Your task to perform on an android device: add a contact Image 0: 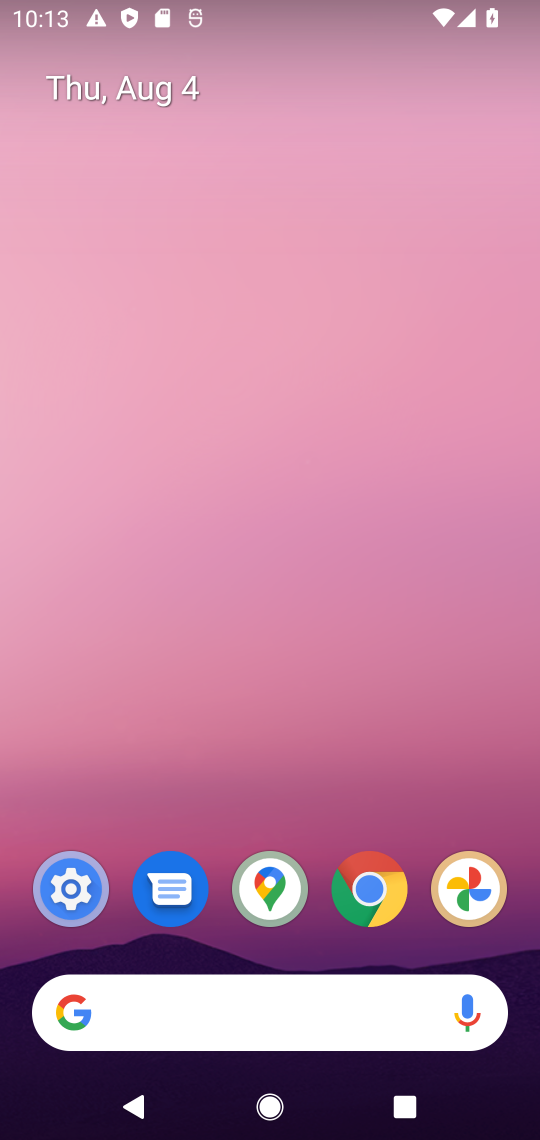
Step 0: press home button
Your task to perform on an android device: add a contact Image 1: 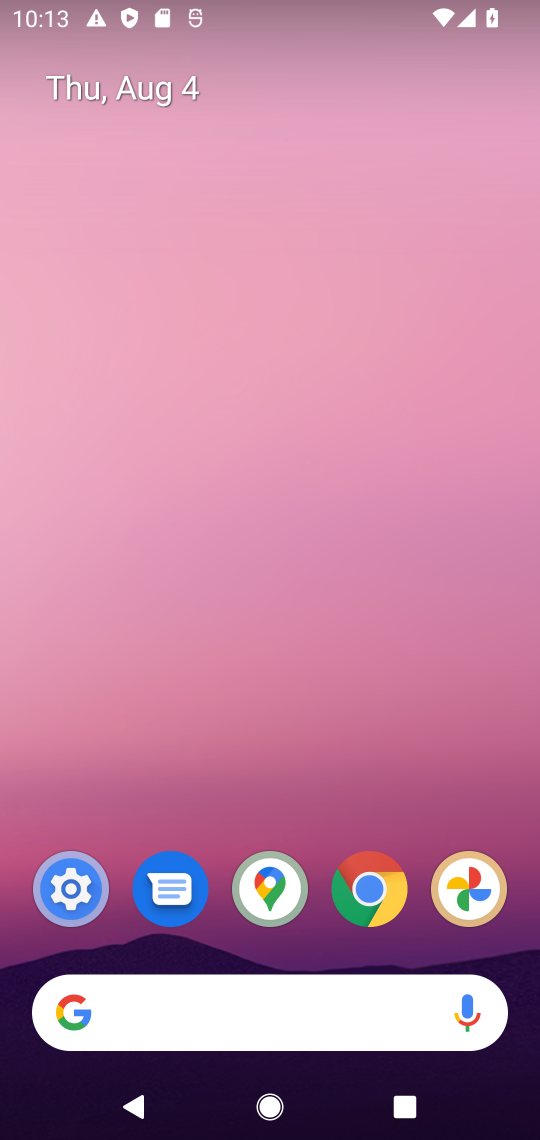
Step 1: drag from (318, 783) to (322, 368)
Your task to perform on an android device: add a contact Image 2: 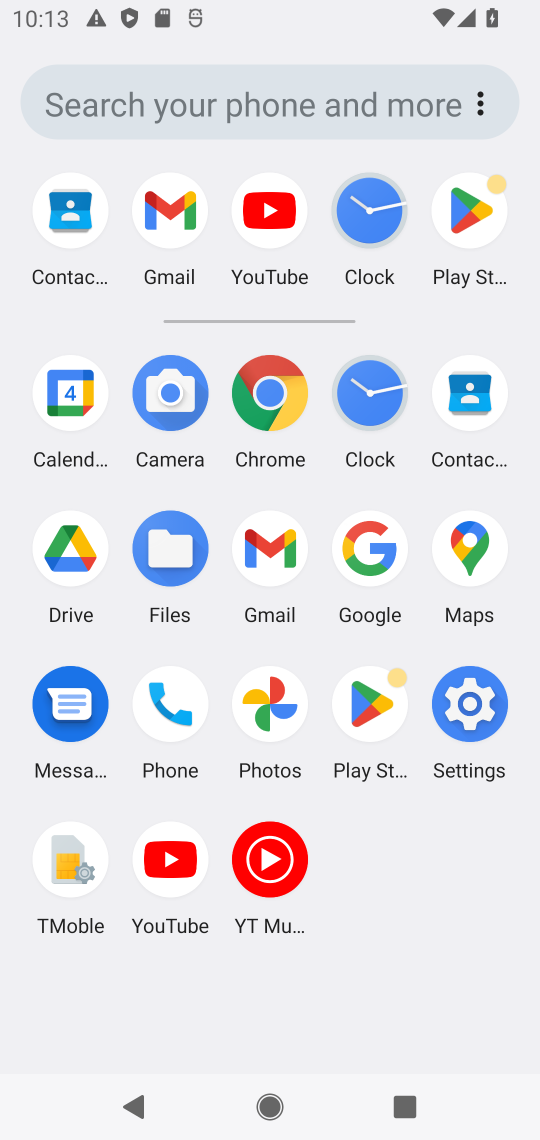
Step 2: click (461, 405)
Your task to perform on an android device: add a contact Image 3: 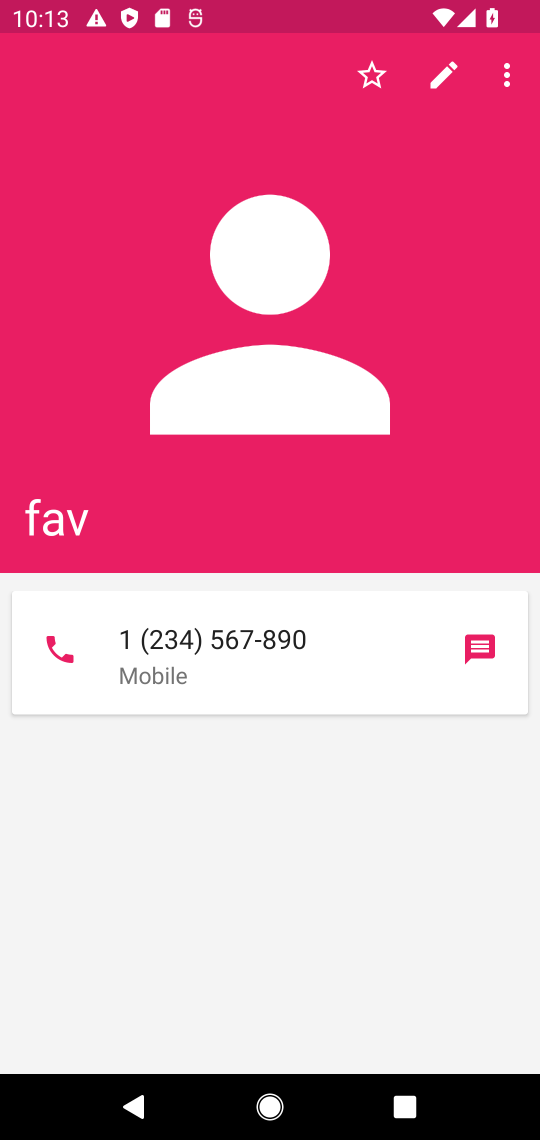
Step 3: press back button
Your task to perform on an android device: add a contact Image 4: 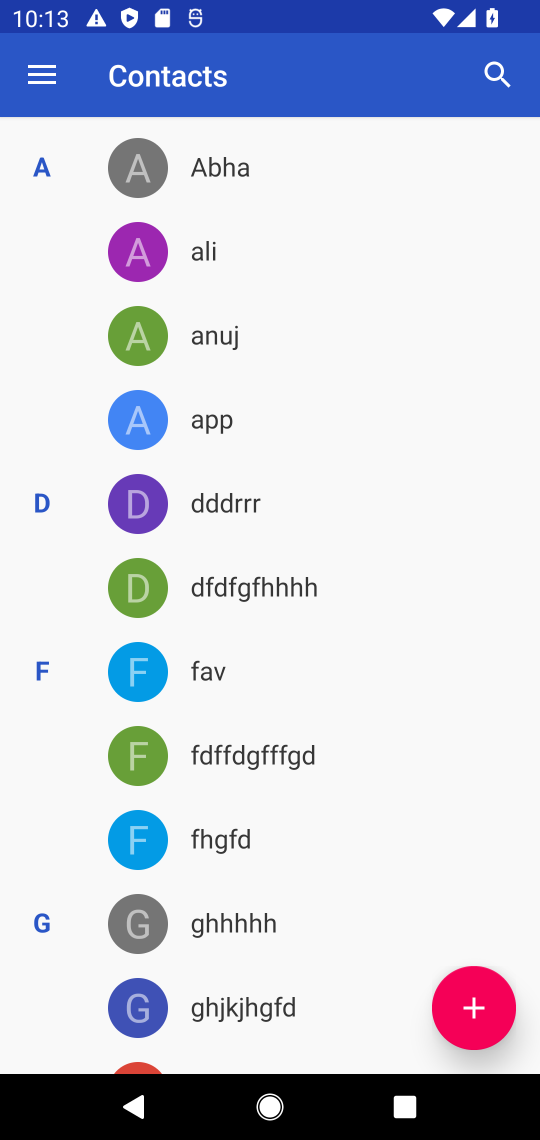
Step 4: click (473, 1011)
Your task to perform on an android device: add a contact Image 5: 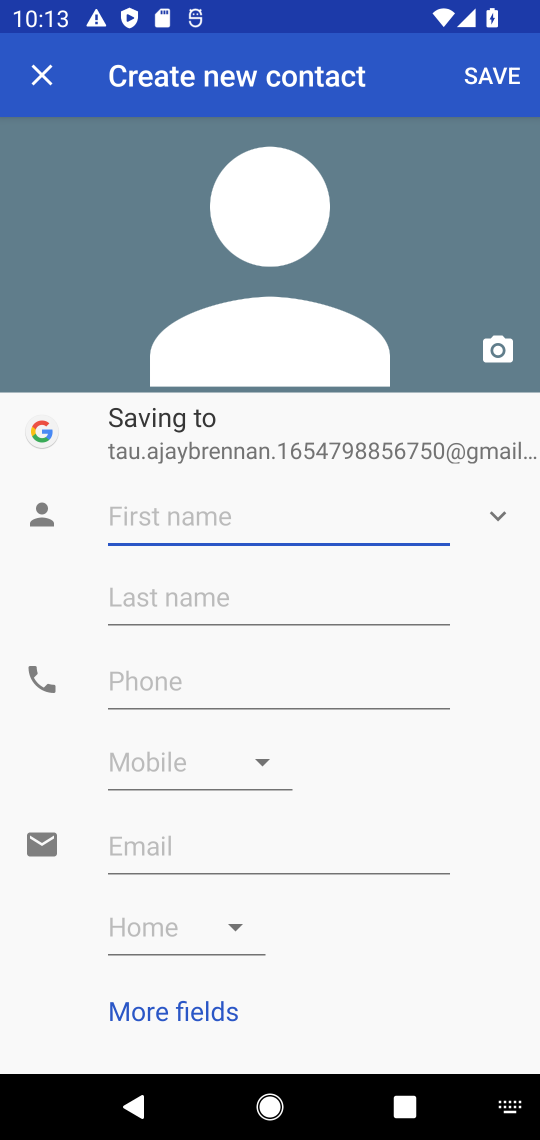
Step 5: type "fav"
Your task to perform on an android device: add a contact Image 6: 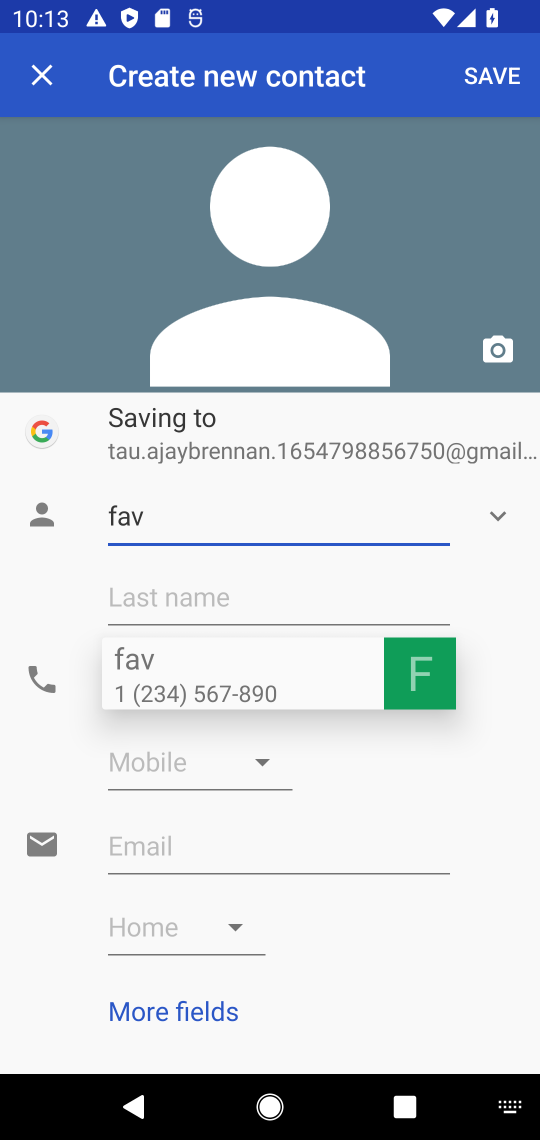
Step 6: click (537, 638)
Your task to perform on an android device: add a contact Image 7: 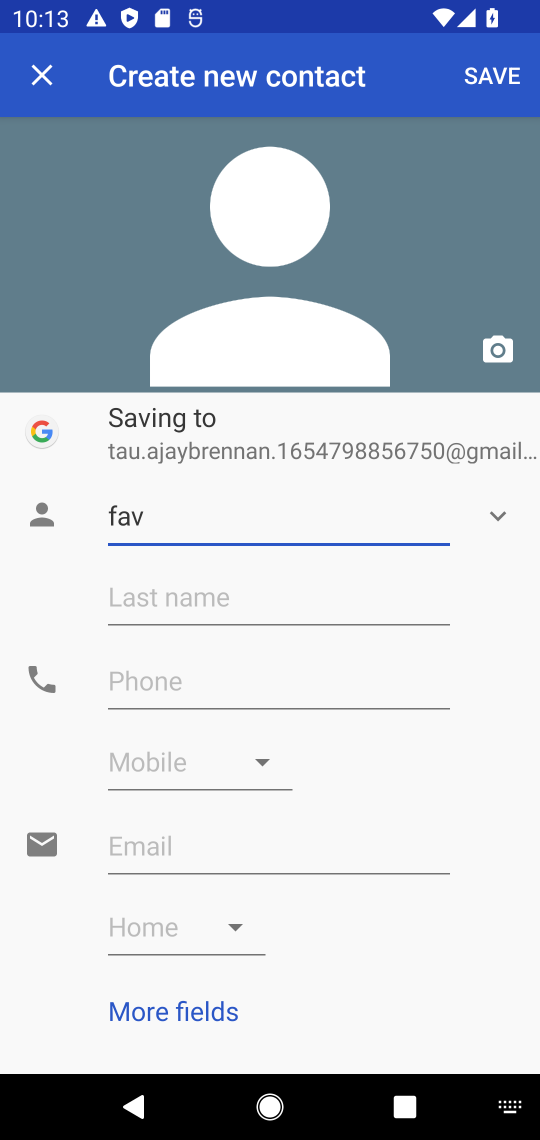
Step 7: click (318, 695)
Your task to perform on an android device: add a contact Image 8: 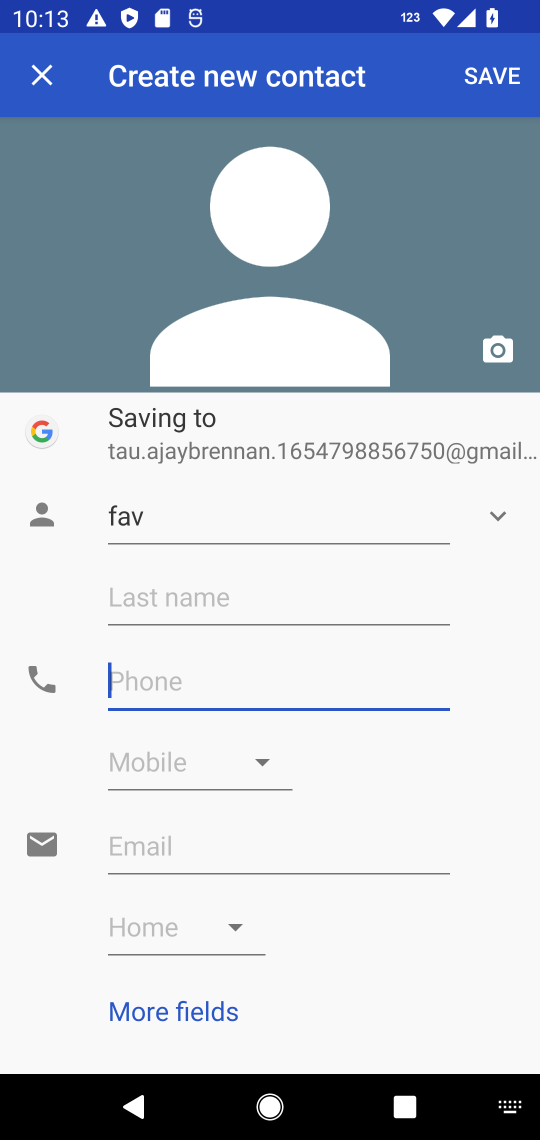
Step 8: type "1234567890"
Your task to perform on an android device: add a contact Image 9: 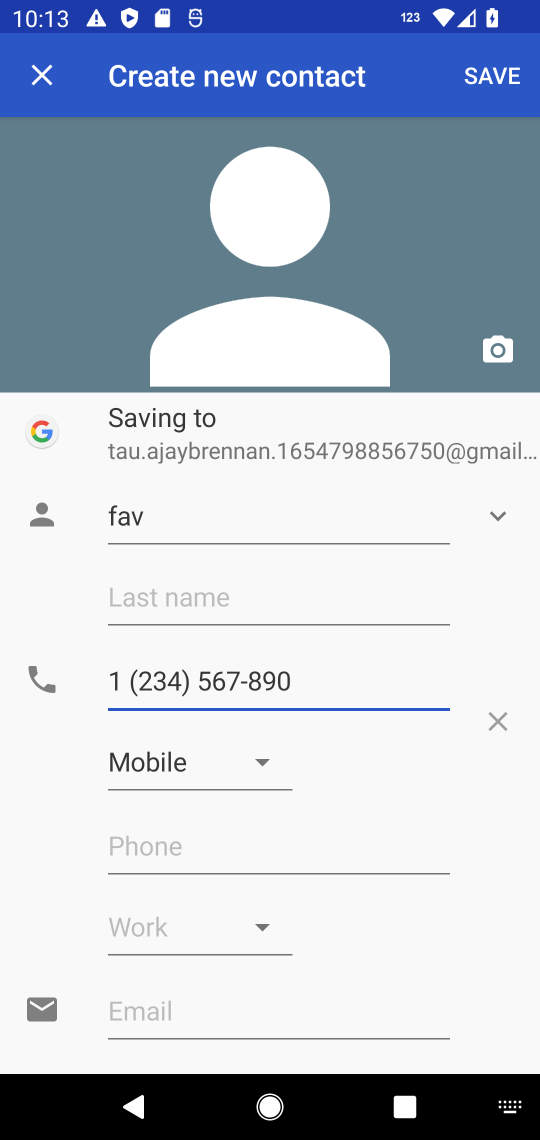
Step 9: click (490, 78)
Your task to perform on an android device: add a contact Image 10: 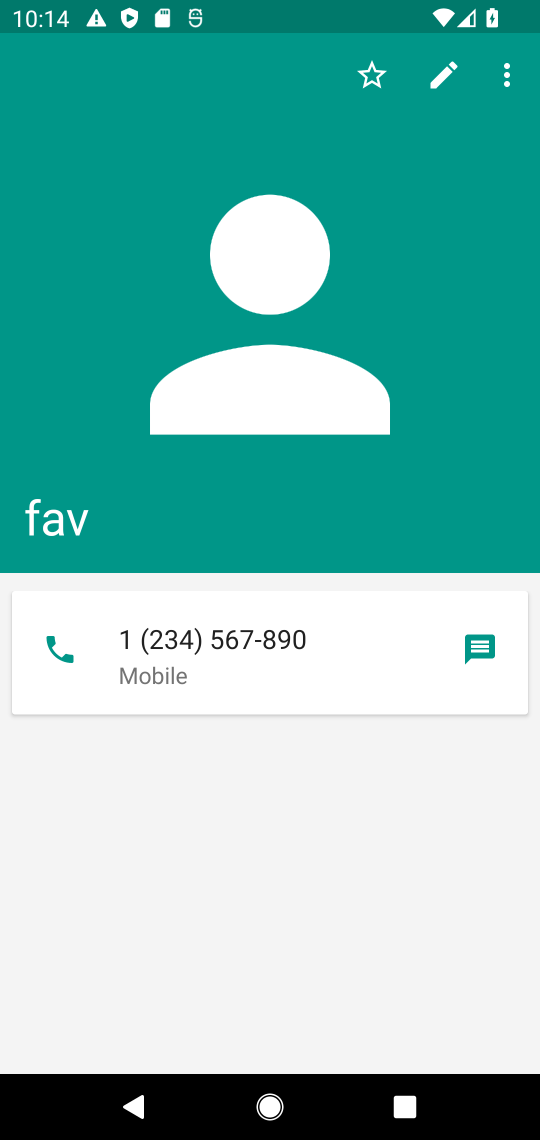
Step 10: task complete